Your task to perform on an android device: Do I have any events this weekend? Image 0: 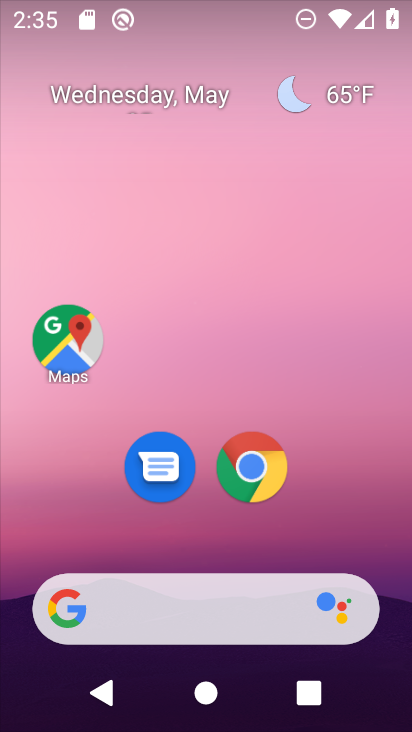
Step 0: drag from (330, 449) to (330, 212)
Your task to perform on an android device: Do I have any events this weekend? Image 1: 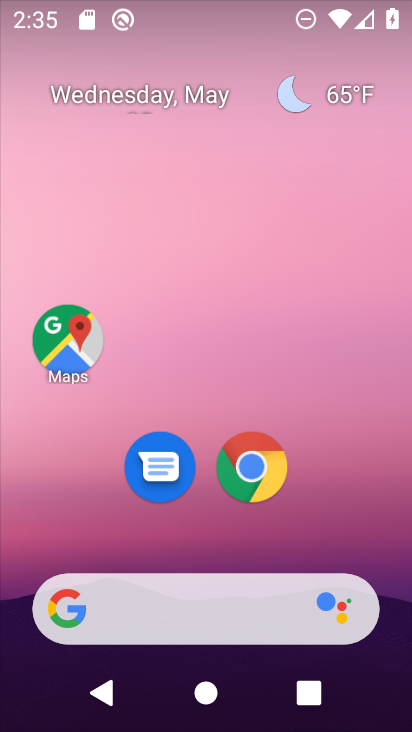
Step 1: drag from (300, 485) to (291, 211)
Your task to perform on an android device: Do I have any events this weekend? Image 2: 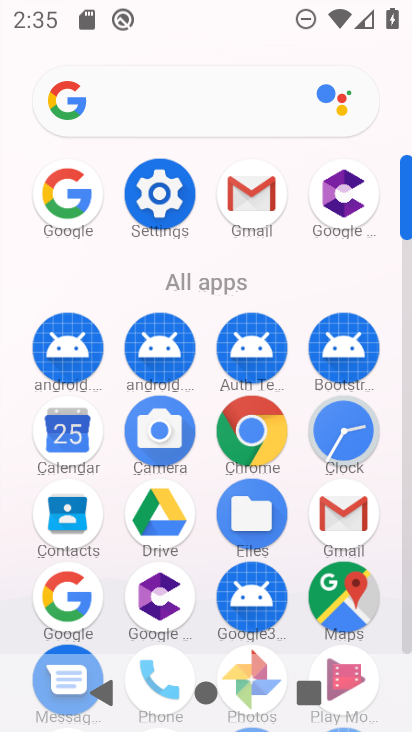
Step 2: click (73, 426)
Your task to perform on an android device: Do I have any events this weekend? Image 3: 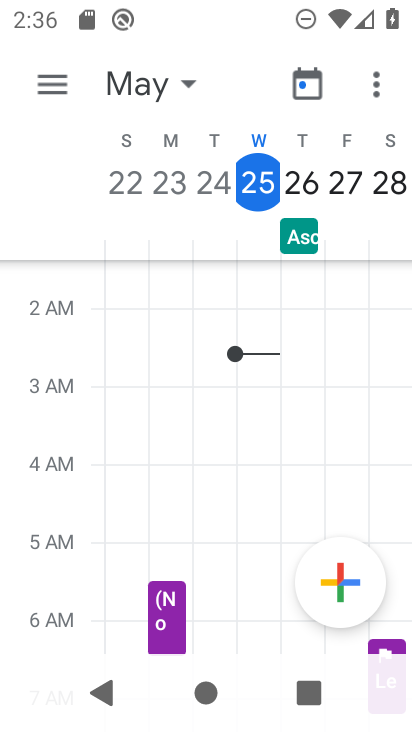
Step 3: task complete